Your task to perform on an android device: open chrome and create a bookmark for the current page Image 0: 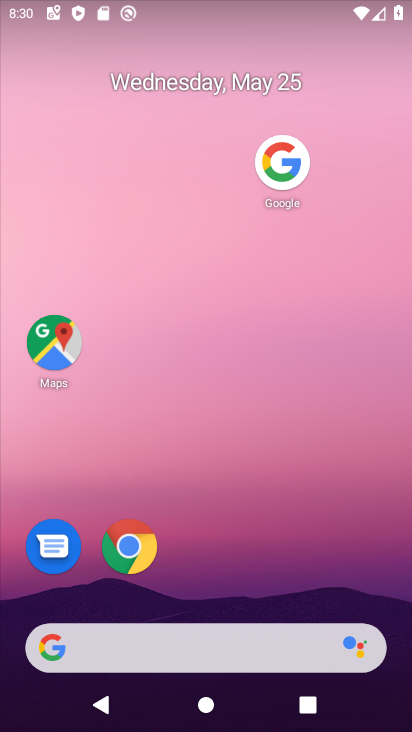
Step 0: click (120, 554)
Your task to perform on an android device: open chrome and create a bookmark for the current page Image 1: 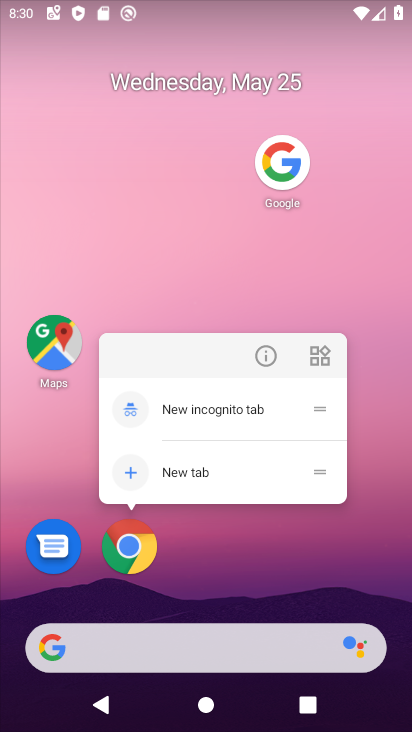
Step 1: click (132, 543)
Your task to perform on an android device: open chrome and create a bookmark for the current page Image 2: 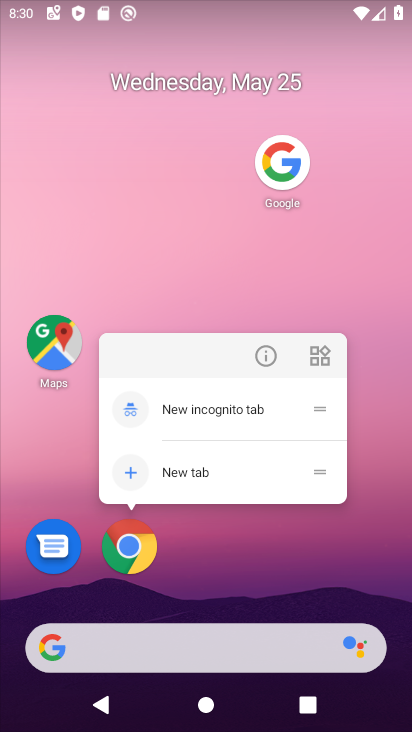
Step 2: click (132, 544)
Your task to perform on an android device: open chrome and create a bookmark for the current page Image 3: 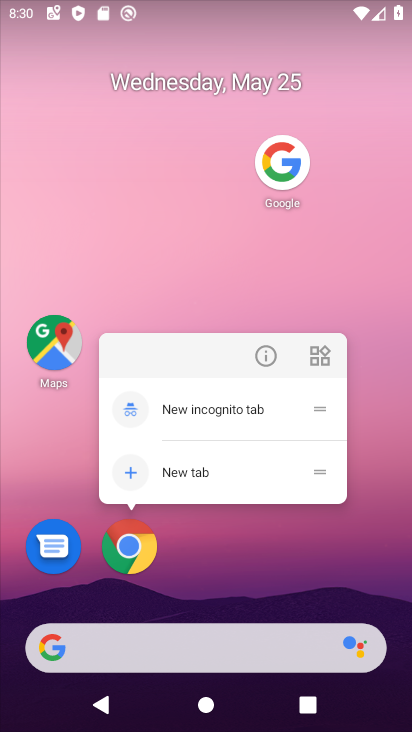
Step 3: click (122, 555)
Your task to perform on an android device: open chrome and create a bookmark for the current page Image 4: 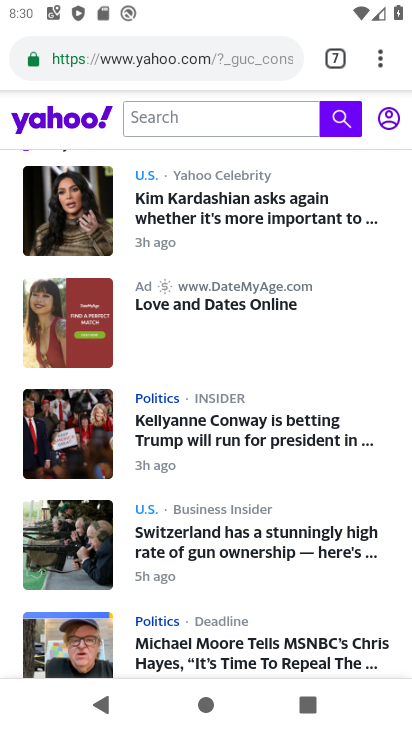
Step 4: click (375, 72)
Your task to perform on an android device: open chrome and create a bookmark for the current page Image 5: 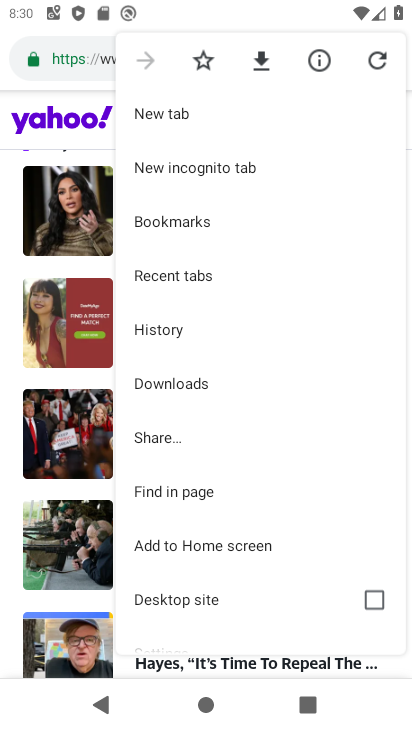
Step 5: click (198, 60)
Your task to perform on an android device: open chrome and create a bookmark for the current page Image 6: 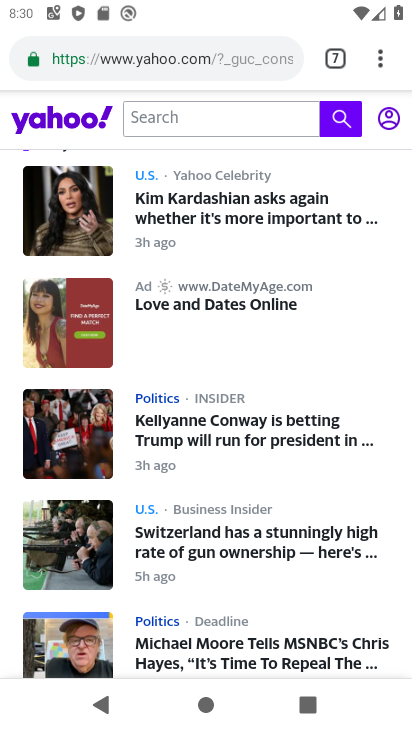
Step 6: task complete